Your task to perform on an android device: snooze an email in the gmail app Image 0: 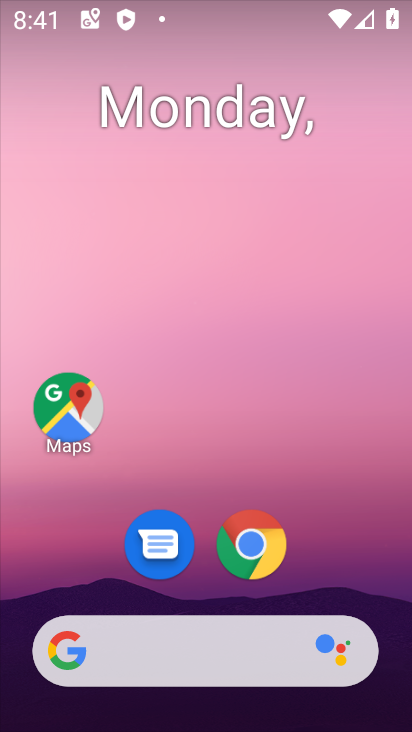
Step 0: drag from (257, 445) to (191, 0)
Your task to perform on an android device: snooze an email in the gmail app Image 1: 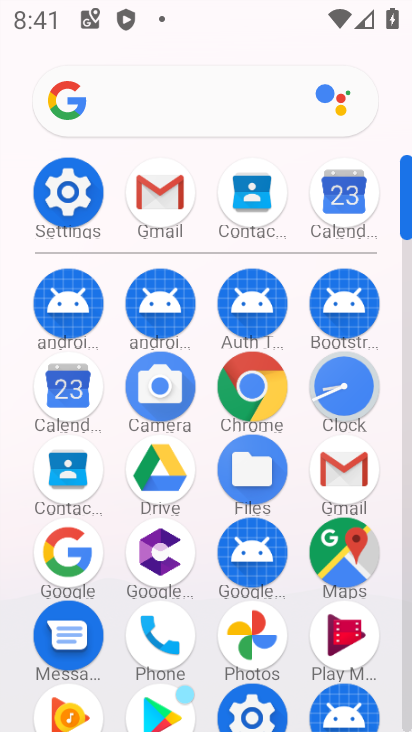
Step 1: click (153, 196)
Your task to perform on an android device: snooze an email in the gmail app Image 2: 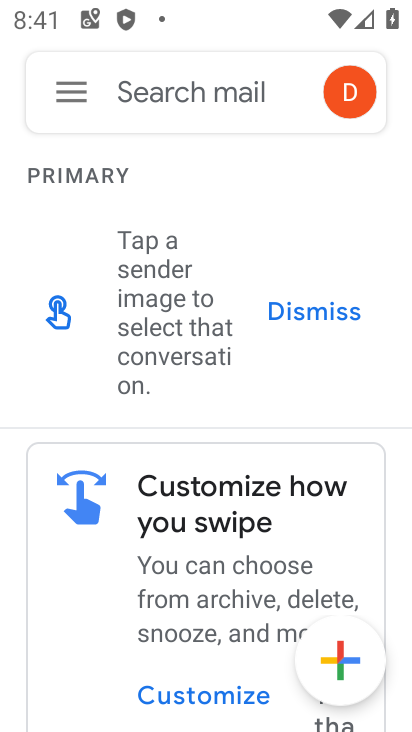
Step 2: drag from (227, 467) to (203, 192)
Your task to perform on an android device: snooze an email in the gmail app Image 3: 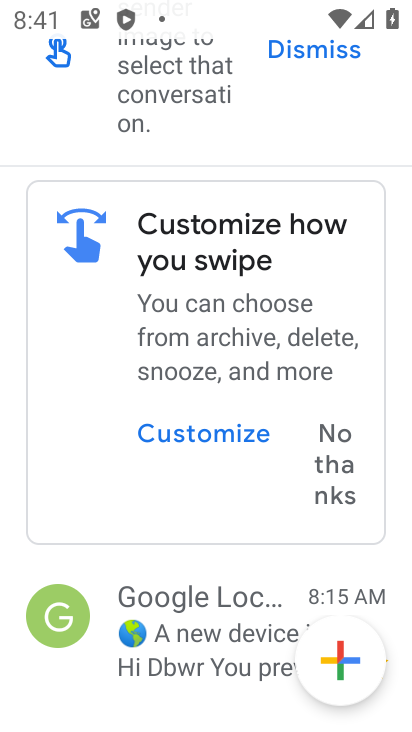
Step 3: click (210, 597)
Your task to perform on an android device: snooze an email in the gmail app Image 4: 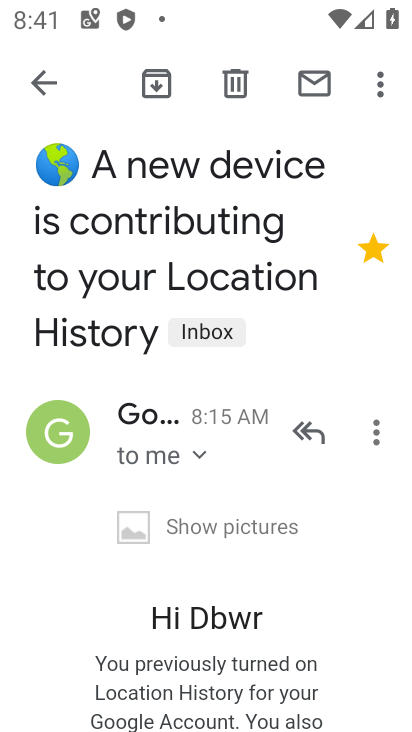
Step 4: click (379, 81)
Your task to perform on an android device: snooze an email in the gmail app Image 5: 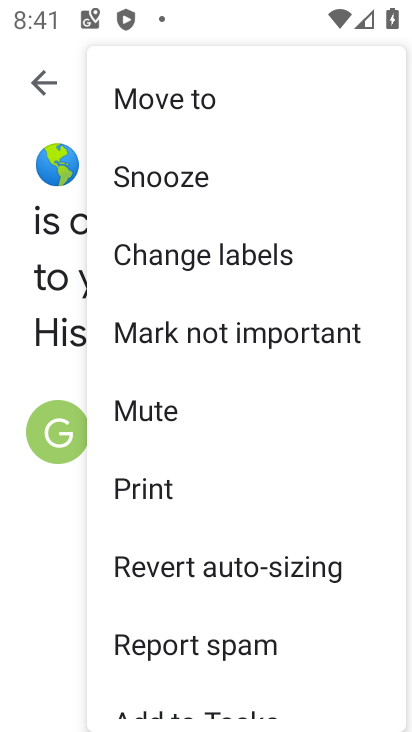
Step 5: click (177, 176)
Your task to perform on an android device: snooze an email in the gmail app Image 6: 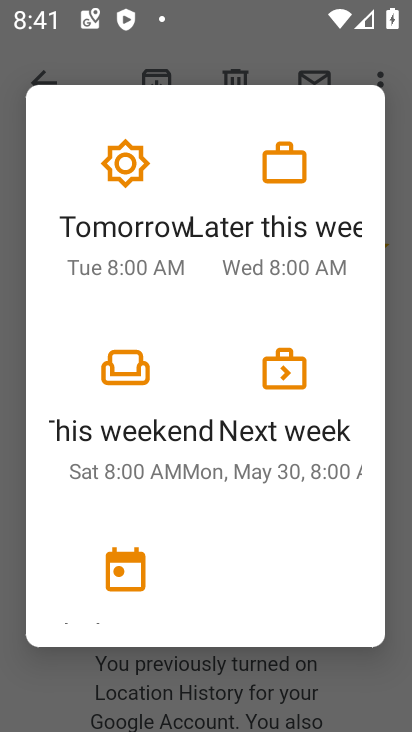
Step 6: click (104, 218)
Your task to perform on an android device: snooze an email in the gmail app Image 7: 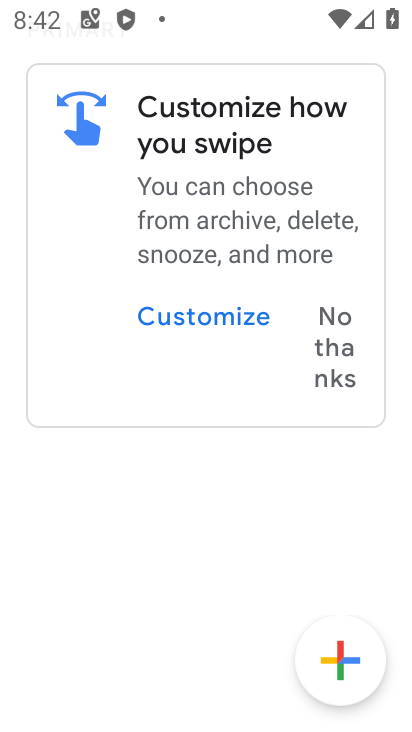
Step 7: task complete